Your task to perform on an android device: uninstall "The Home Depot" Image 0: 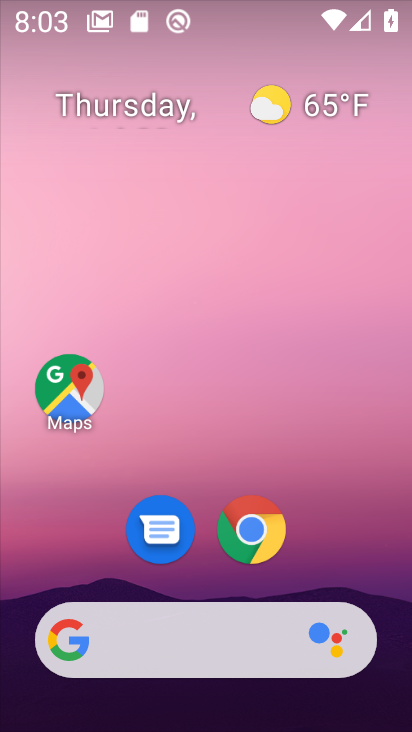
Step 0: drag from (233, 545) to (240, 61)
Your task to perform on an android device: uninstall "The Home Depot" Image 1: 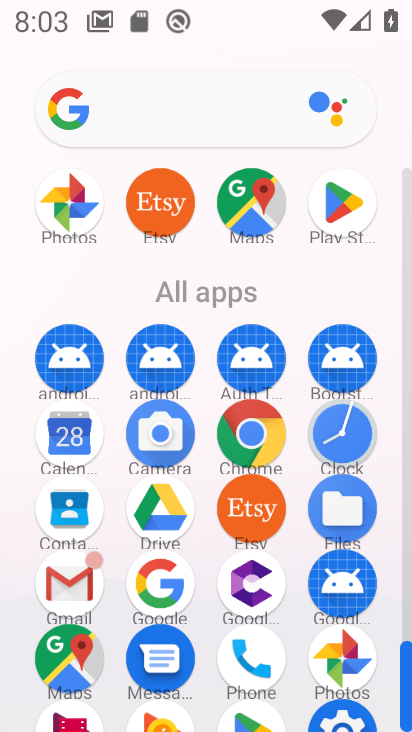
Step 1: drag from (298, 415) to (283, 289)
Your task to perform on an android device: uninstall "The Home Depot" Image 2: 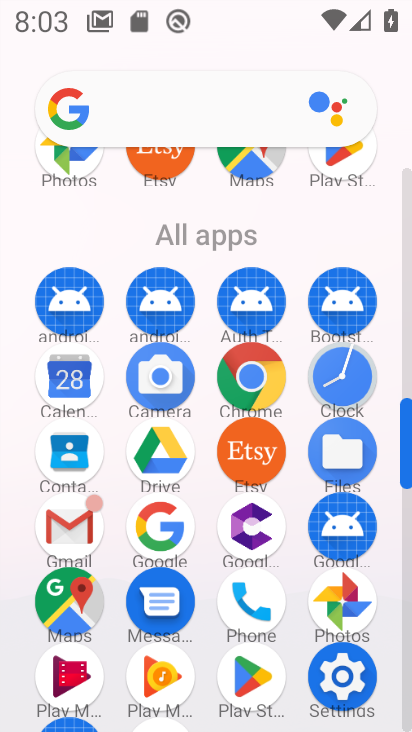
Step 2: click (336, 156)
Your task to perform on an android device: uninstall "The Home Depot" Image 3: 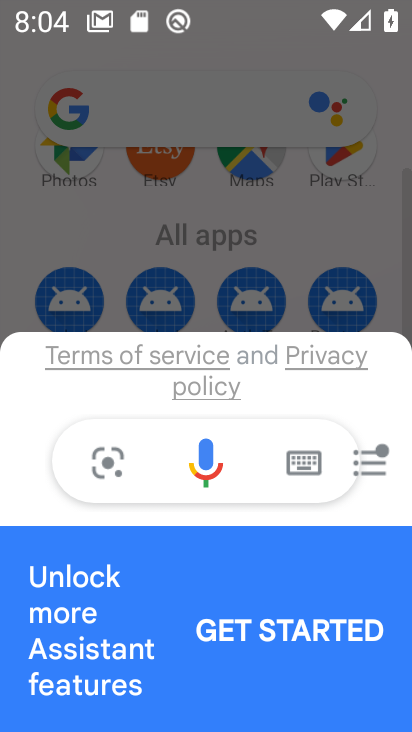
Step 3: click (298, 235)
Your task to perform on an android device: uninstall "The Home Depot" Image 4: 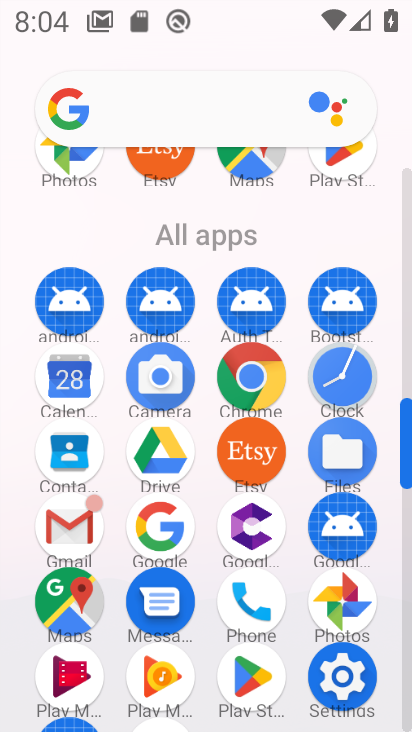
Step 4: click (337, 163)
Your task to perform on an android device: uninstall "The Home Depot" Image 5: 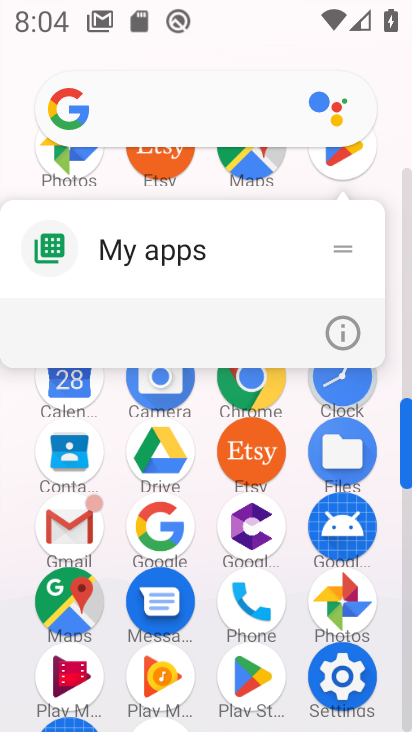
Step 5: click (338, 152)
Your task to perform on an android device: uninstall "The Home Depot" Image 6: 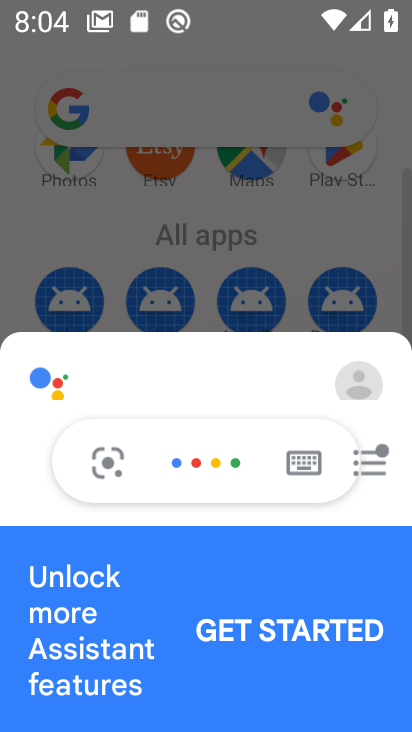
Step 6: click (308, 236)
Your task to perform on an android device: uninstall "The Home Depot" Image 7: 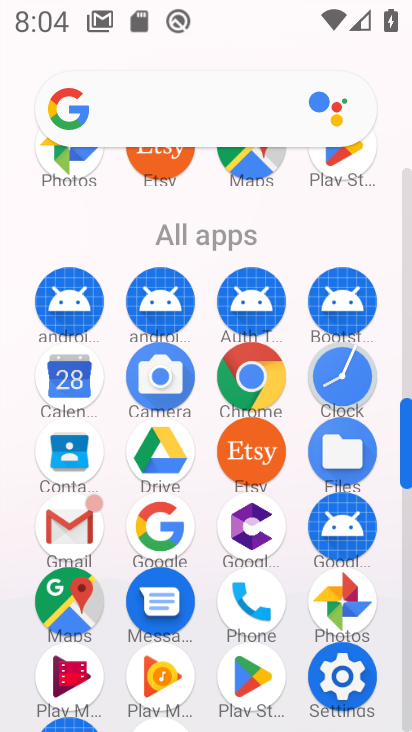
Step 7: click (242, 663)
Your task to perform on an android device: uninstall "The Home Depot" Image 8: 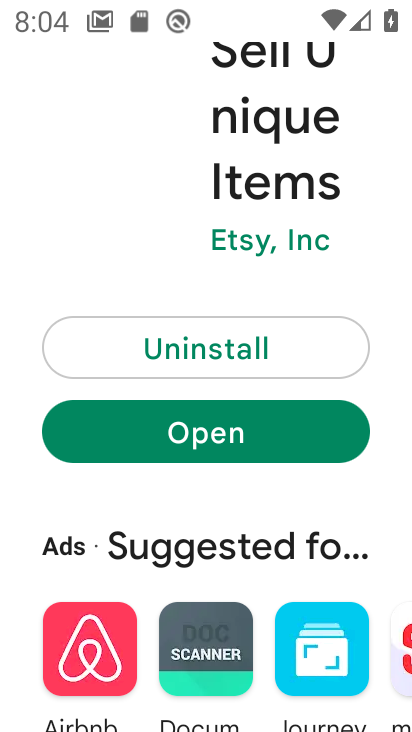
Step 8: drag from (303, 137) to (296, 523)
Your task to perform on an android device: uninstall "The Home Depot" Image 9: 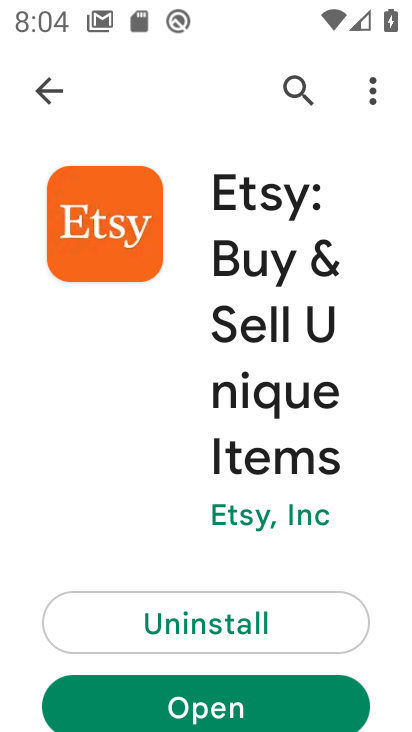
Step 9: click (297, 88)
Your task to perform on an android device: uninstall "The Home Depot" Image 10: 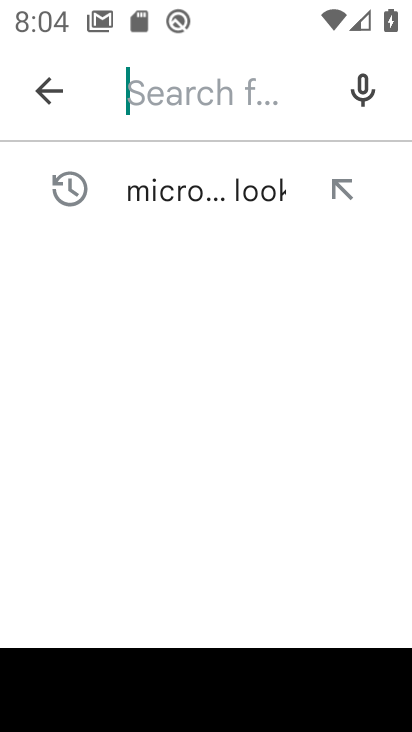
Step 10: type "The Home Depot"
Your task to perform on an android device: uninstall "The Home Depot" Image 11: 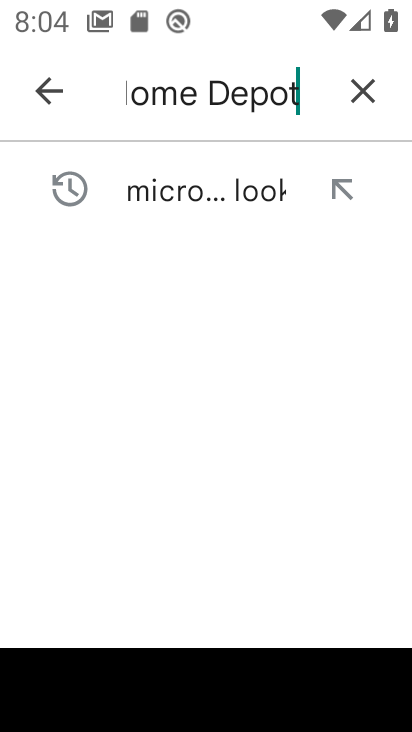
Step 11: type ""
Your task to perform on an android device: uninstall "The Home Depot" Image 12: 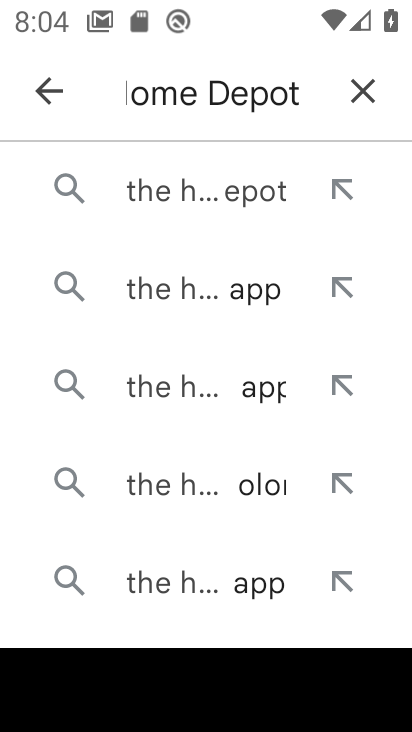
Step 12: click (218, 202)
Your task to perform on an android device: uninstall "The Home Depot" Image 13: 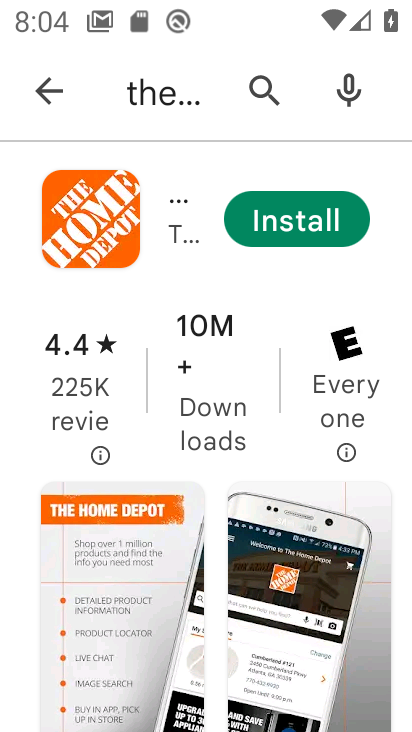
Step 13: task complete